Your task to perform on an android device: Go to Reddit.com Image 0: 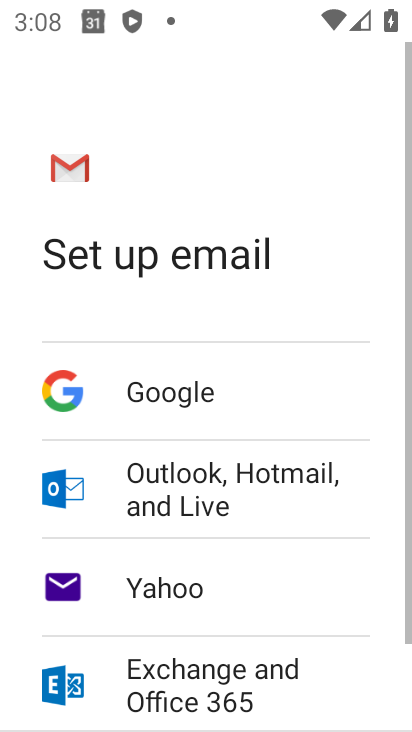
Step 0: press home button
Your task to perform on an android device: Go to Reddit.com Image 1: 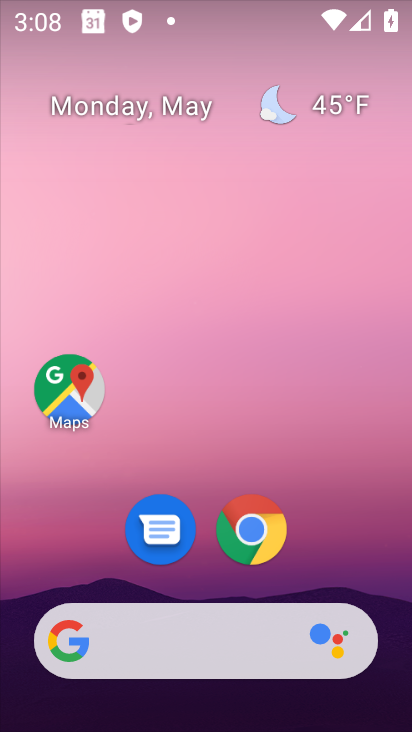
Step 1: click (236, 524)
Your task to perform on an android device: Go to Reddit.com Image 2: 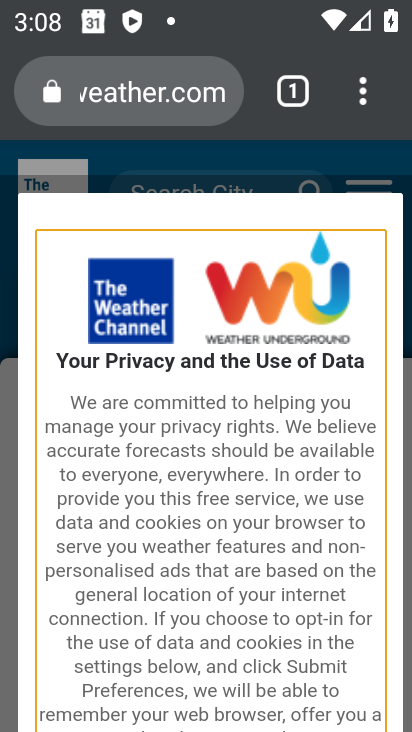
Step 2: click (112, 108)
Your task to perform on an android device: Go to Reddit.com Image 3: 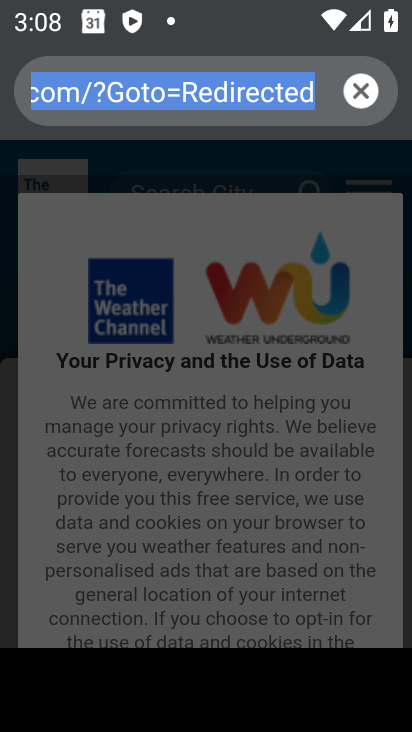
Step 3: type "Reddit.com"
Your task to perform on an android device: Go to Reddit.com Image 4: 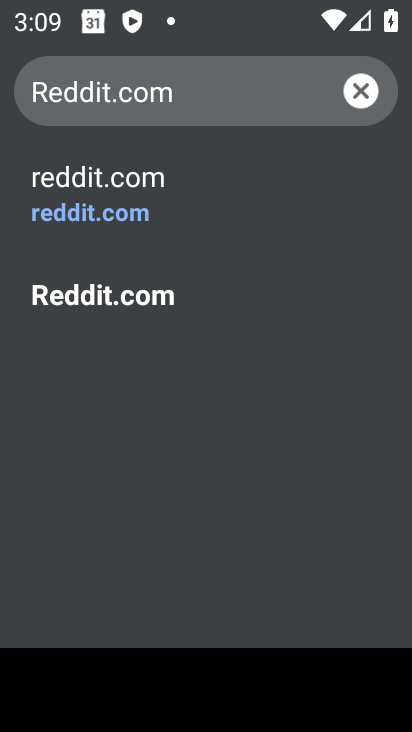
Step 4: click (135, 218)
Your task to perform on an android device: Go to Reddit.com Image 5: 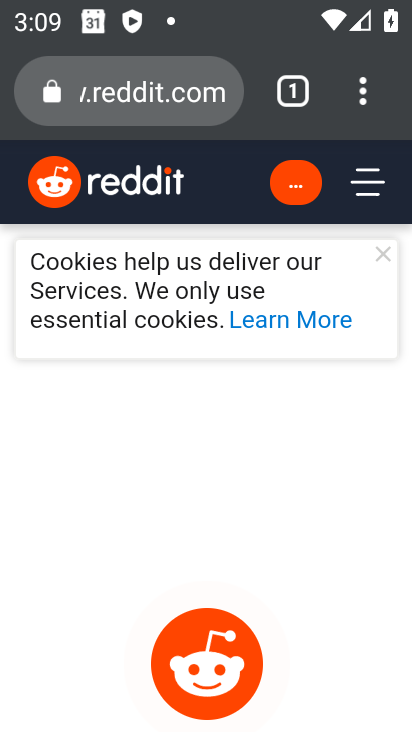
Step 5: task complete